Your task to perform on an android device: open the mobile data screen to see how much data has been used Image 0: 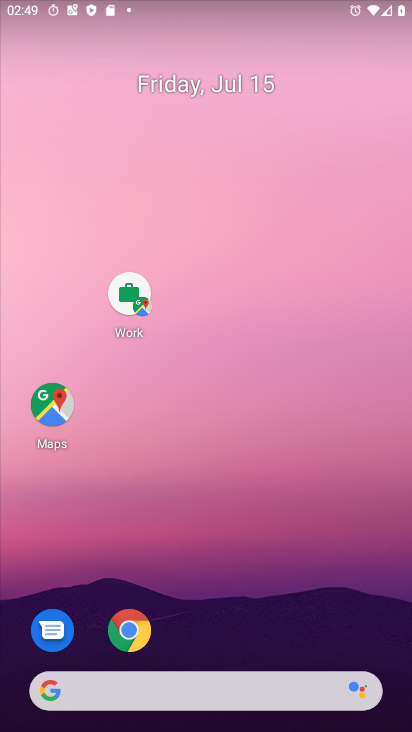
Step 0: drag from (239, 640) to (251, 193)
Your task to perform on an android device: open the mobile data screen to see how much data has been used Image 1: 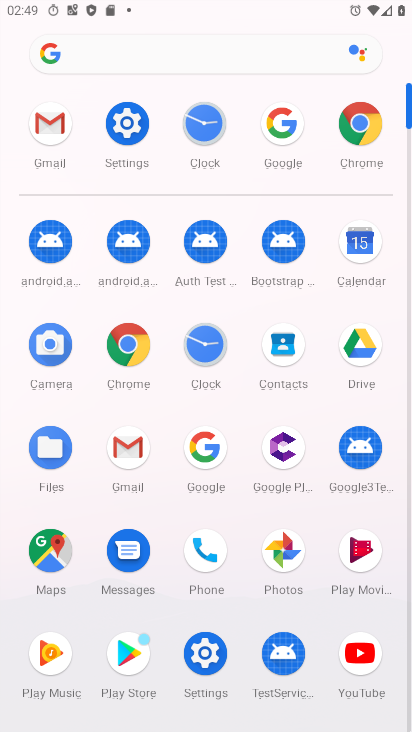
Step 1: click (138, 136)
Your task to perform on an android device: open the mobile data screen to see how much data has been used Image 2: 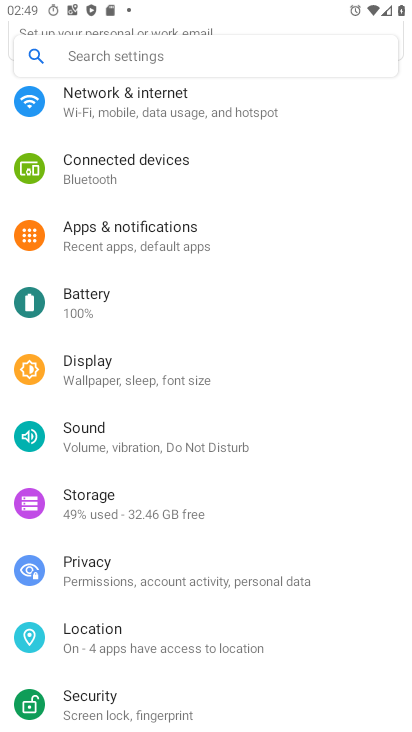
Step 2: click (202, 114)
Your task to perform on an android device: open the mobile data screen to see how much data has been used Image 3: 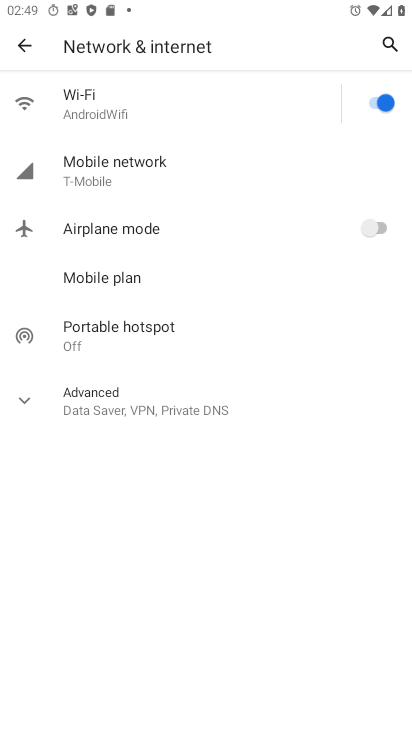
Step 3: click (136, 177)
Your task to perform on an android device: open the mobile data screen to see how much data has been used Image 4: 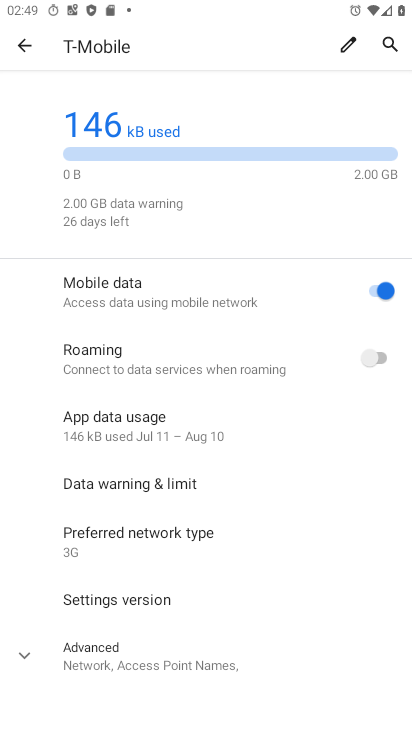
Step 4: click (145, 414)
Your task to perform on an android device: open the mobile data screen to see how much data has been used Image 5: 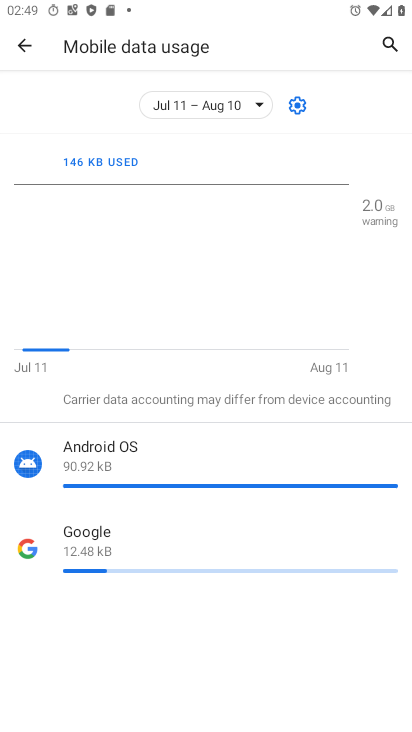
Step 5: task complete